Your task to perform on an android device: Go to notification settings Image 0: 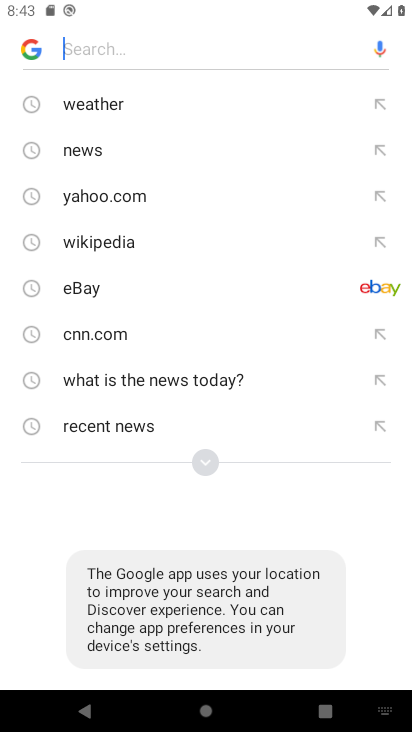
Step 0: press home button
Your task to perform on an android device: Go to notification settings Image 1: 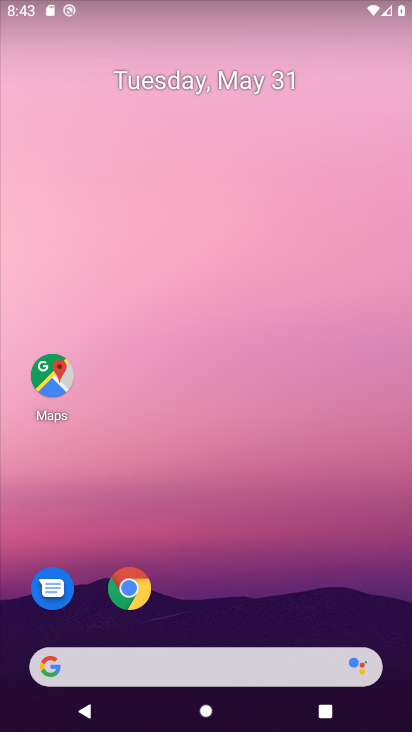
Step 1: drag from (189, 667) to (391, 0)
Your task to perform on an android device: Go to notification settings Image 2: 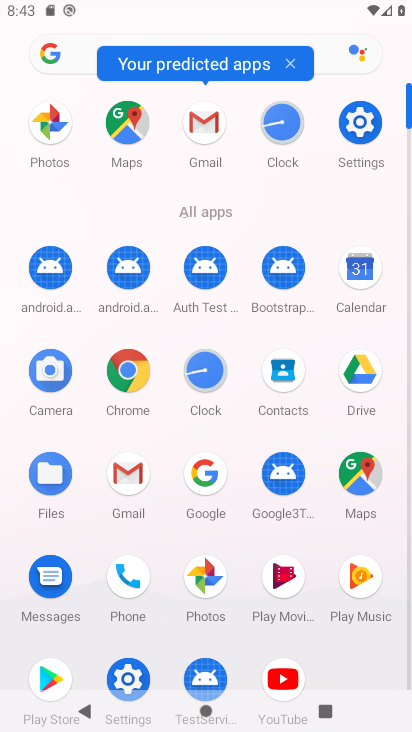
Step 2: click (360, 132)
Your task to perform on an android device: Go to notification settings Image 3: 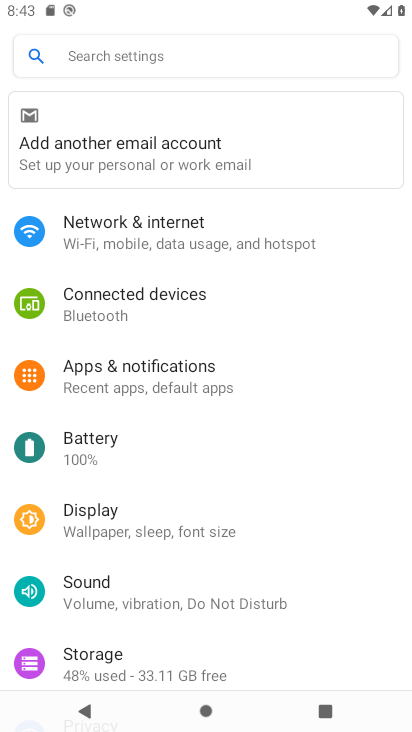
Step 3: click (162, 385)
Your task to perform on an android device: Go to notification settings Image 4: 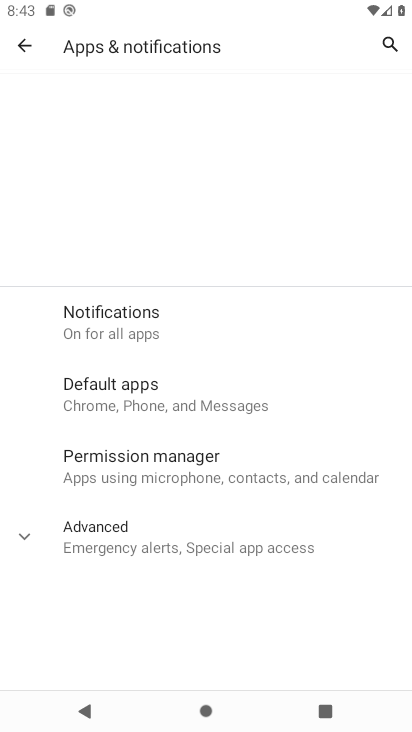
Step 4: click (143, 323)
Your task to perform on an android device: Go to notification settings Image 5: 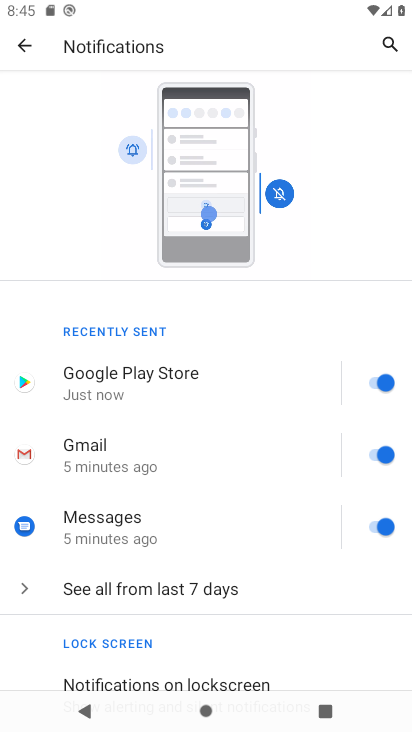
Step 5: task complete